Your task to perform on an android device: What's the weather? Image 0: 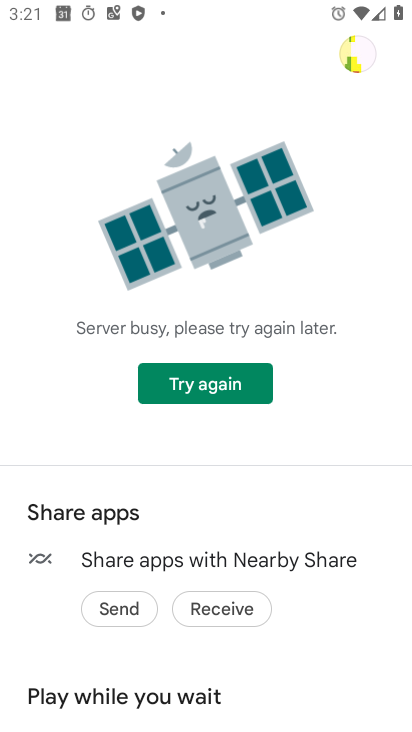
Step 0: press back button
Your task to perform on an android device: What's the weather? Image 1: 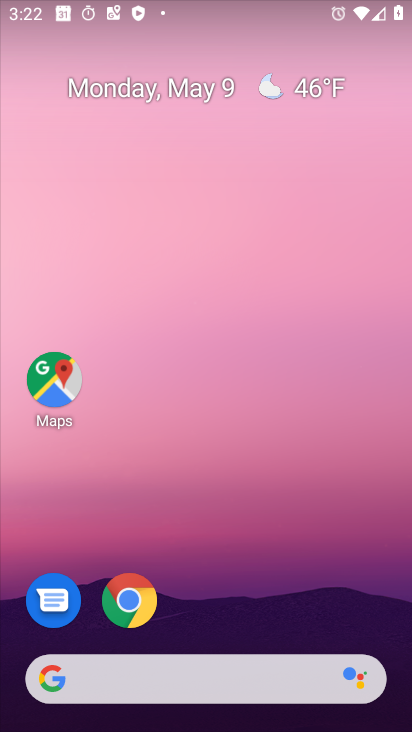
Step 1: click (344, 73)
Your task to perform on an android device: What's the weather? Image 2: 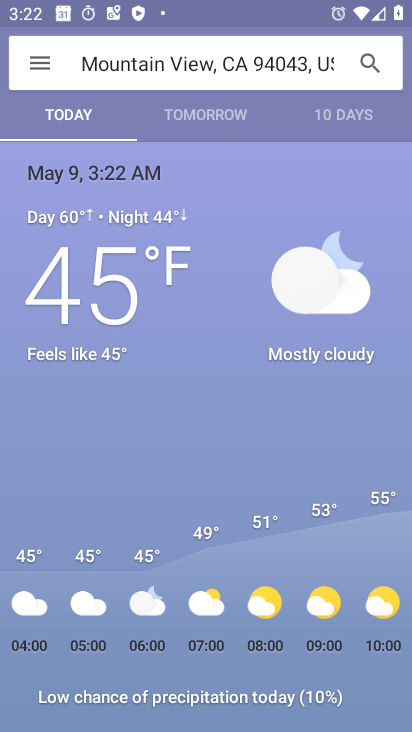
Step 2: task complete